Your task to perform on an android device: toggle priority inbox in the gmail app Image 0: 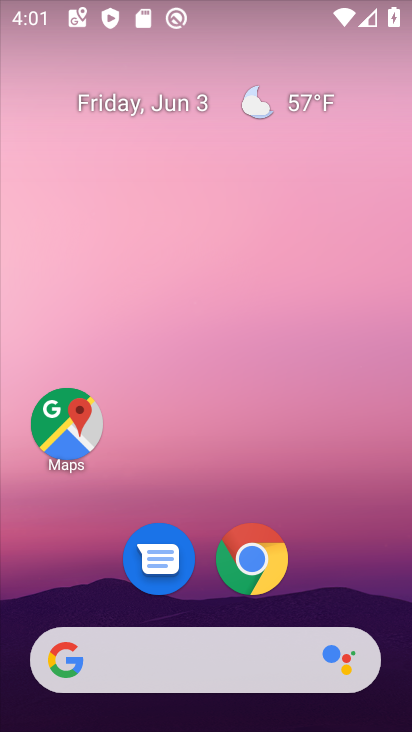
Step 0: press home button
Your task to perform on an android device: toggle priority inbox in the gmail app Image 1: 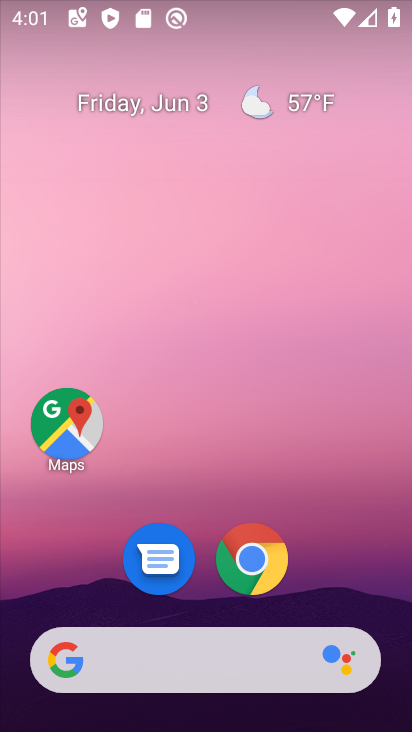
Step 1: drag from (339, 597) to (356, 97)
Your task to perform on an android device: toggle priority inbox in the gmail app Image 2: 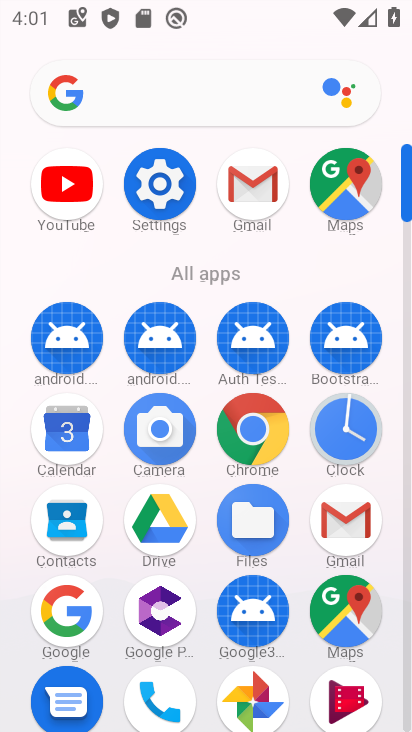
Step 2: click (343, 515)
Your task to perform on an android device: toggle priority inbox in the gmail app Image 3: 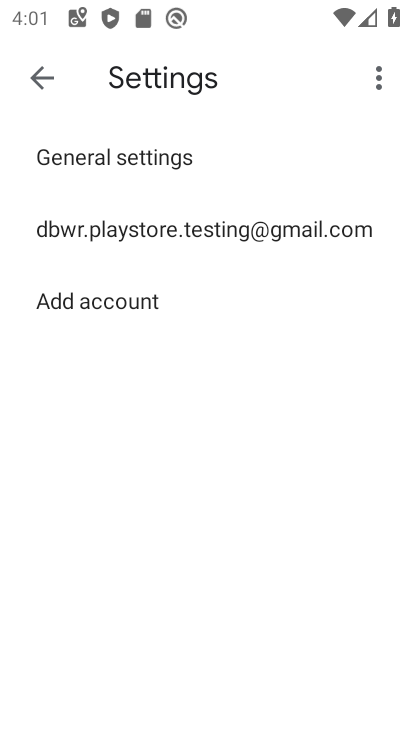
Step 3: click (99, 236)
Your task to perform on an android device: toggle priority inbox in the gmail app Image 4: 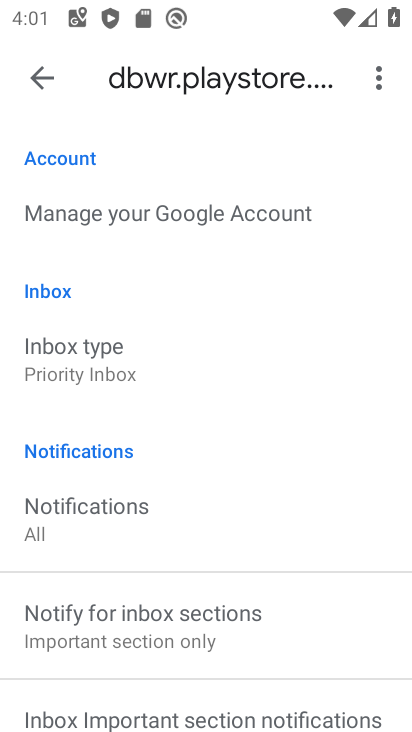
Step 4: click (95, 364)
Your task to perform on an android device: toggle priority inbox in the gmail app Image 5: 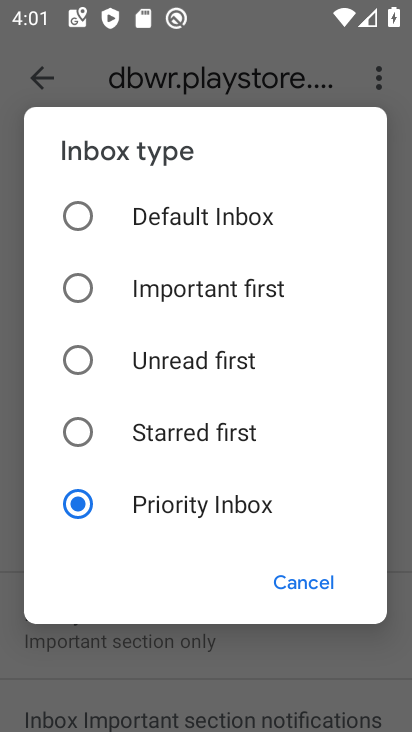
Step 5: click (183, 202)
Your task to perform on an android device: toggle priority inbox in the gmail app Image 6: 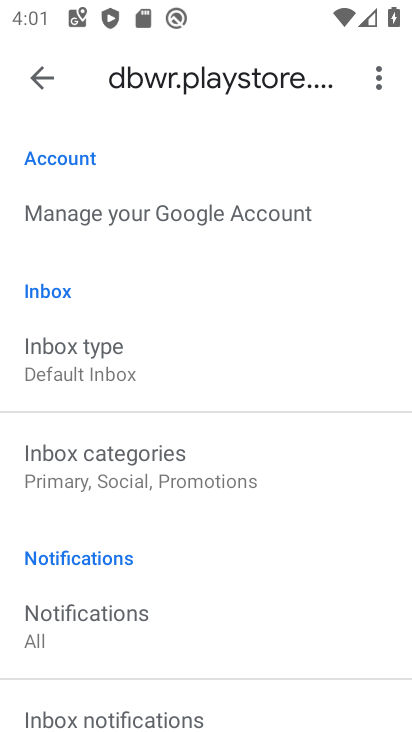
Step 6: task complete